Your task to perform on an android device: allow cookies in the chrome app Image 0: 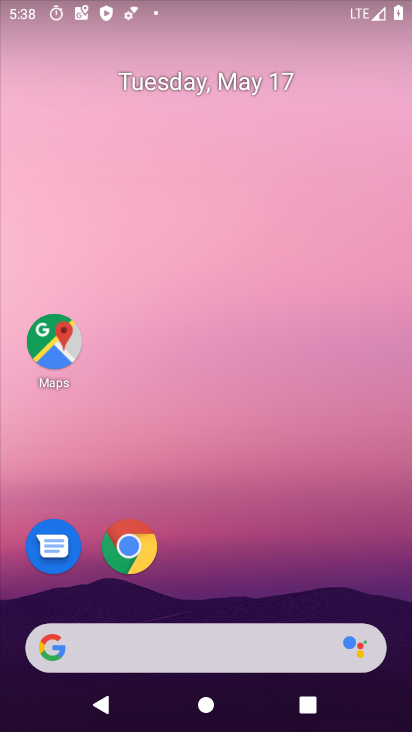
Step 0: drag from (191, 392) to (212, 193)
Your task to perform on an android device: allow cookies in the chrome app Image 1: 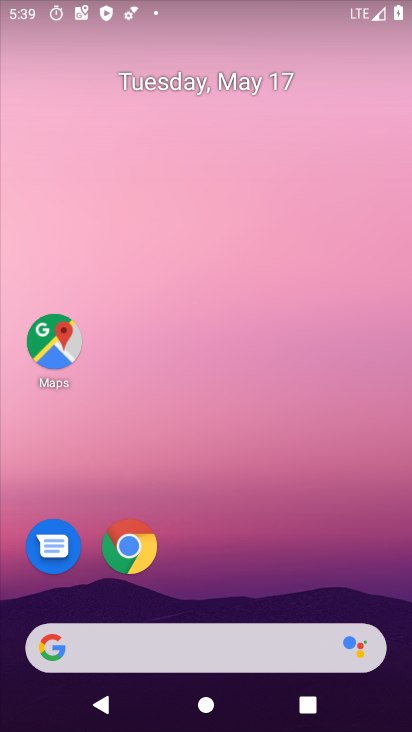
Step 1: drag from (257, 540) to (99, 158)
Your task to perform on an android device: allow cookies in the chrome app Image 2: 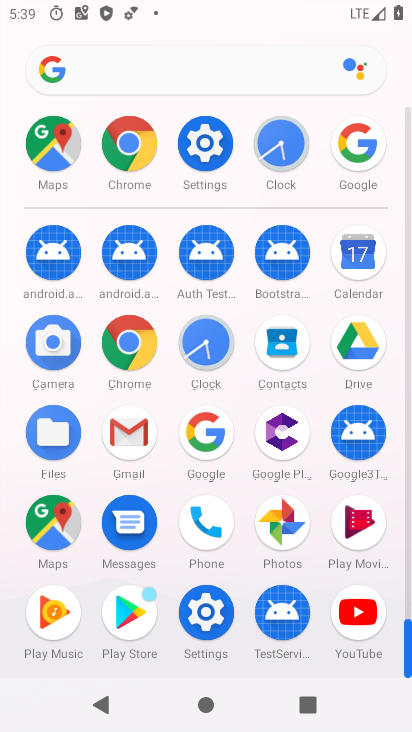
Step 2: click (172, 583)
Your task to perform on an android device: allow cookies in the chrome app Image 3: 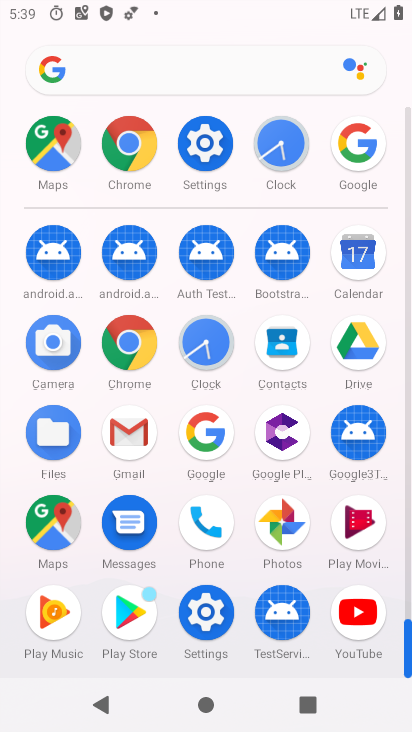
Step 3: click (197, 645)
Your task to perform on an android device: allow cookies in the chrome app Image 4: 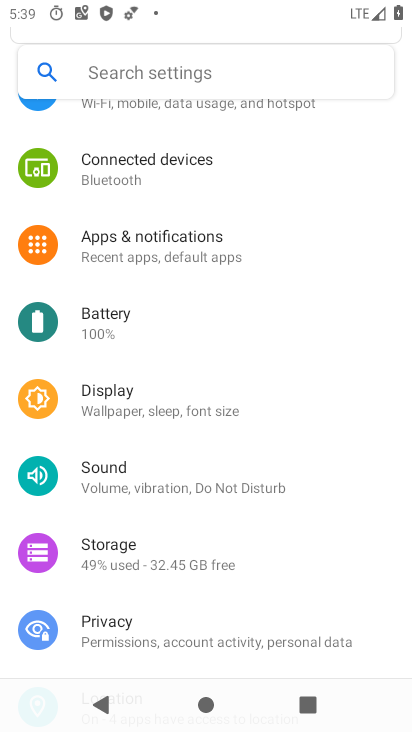
Step 4: drag from (112, 203) to (147, 453)
Your task to perform on an android device: allow cookies in the chrome app Image 5: 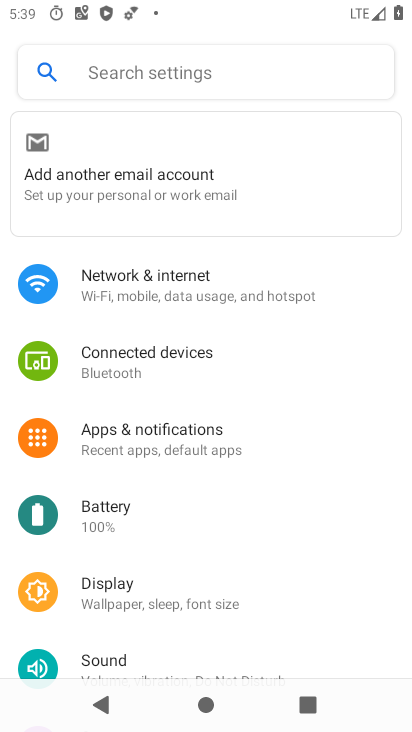
Step 5: press back button
Your task to perform on an android device: allow cookies in the chrome app Image 6: 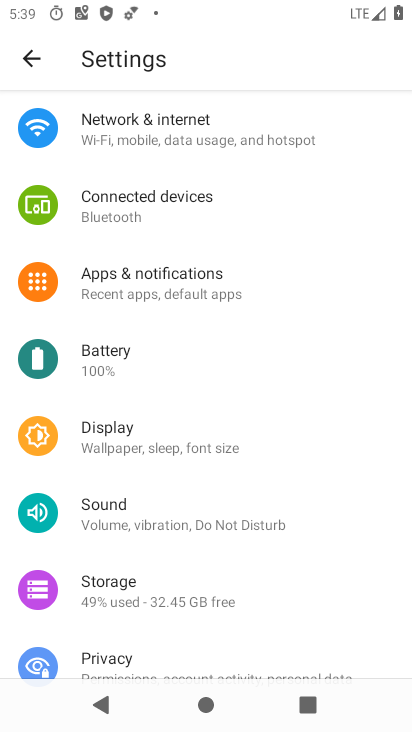
Step 6: drag from (141, 640) to (85, 463)
Your task to perform on an android device: allow cookies in the chrome app Image 7: 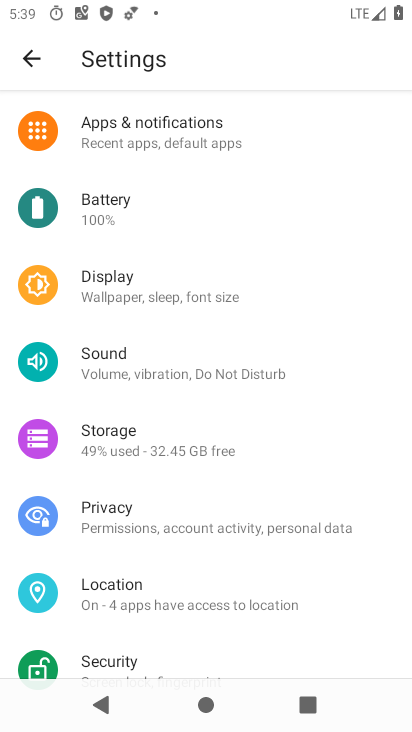
Step 7: press back button
Your task to perform on an android device: allow cookies in the chrome app Image 8: 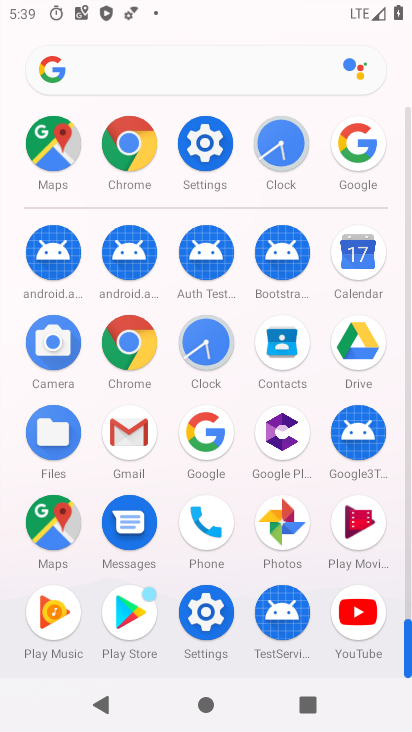
Step 8: click (369, 153)
Your task to perform on an android device: allow cookies in the chrome app Image 9: 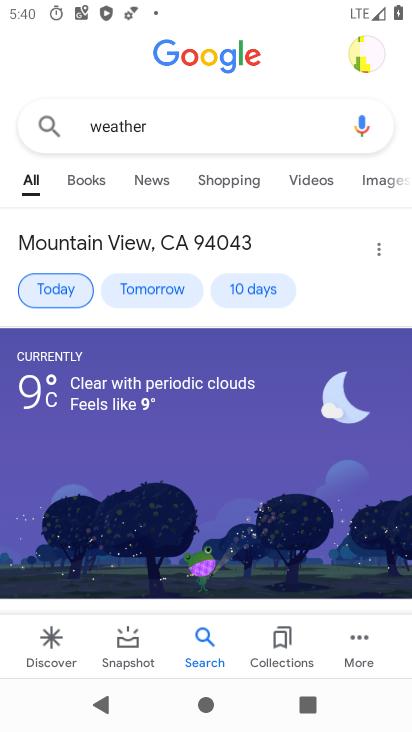
Step 9: task complete